Your task to perform on an android device: Open Google Maps Image 0: 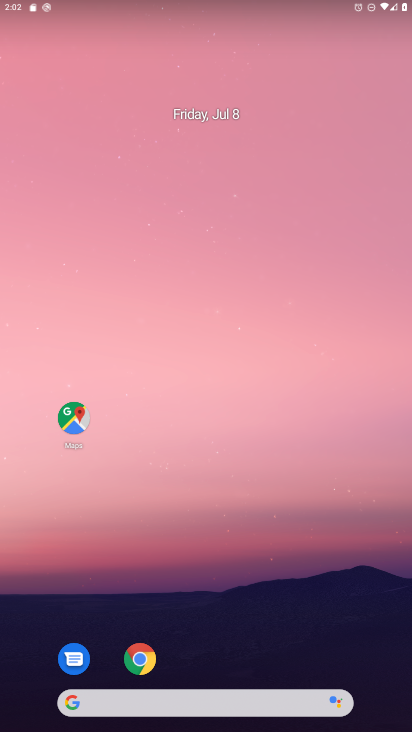
Step 0: click (72, 420)
Your task to perform on an android device: Open Google Maps Image 1: 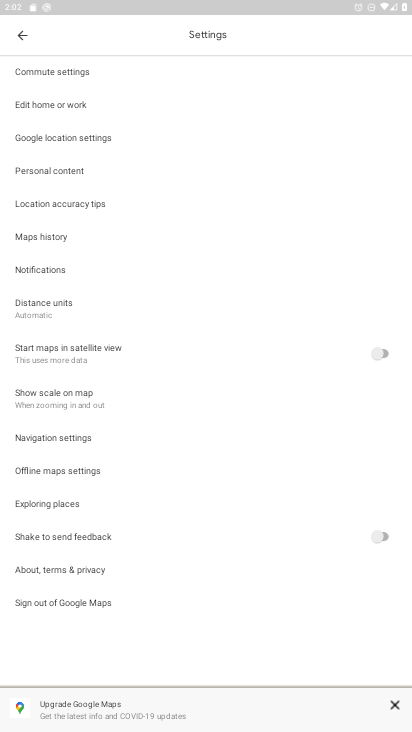
Step 1: task complete